Your task to perform on an android device: toggle javascript in the chrome app Image 0: 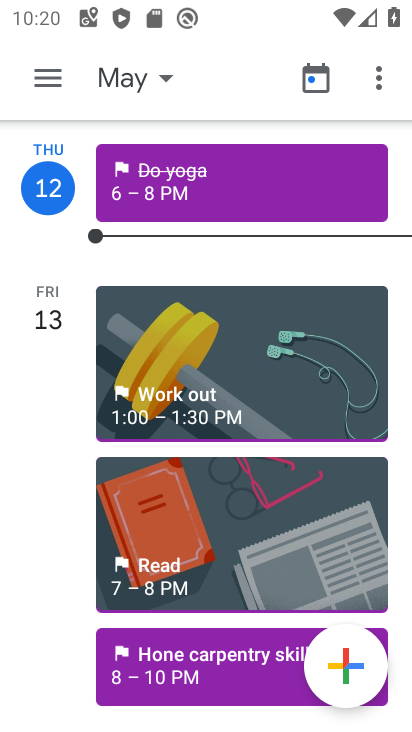
Step 0: press home button
Your task to perform on an android device: toggle javascript in the chrome app Image 1: 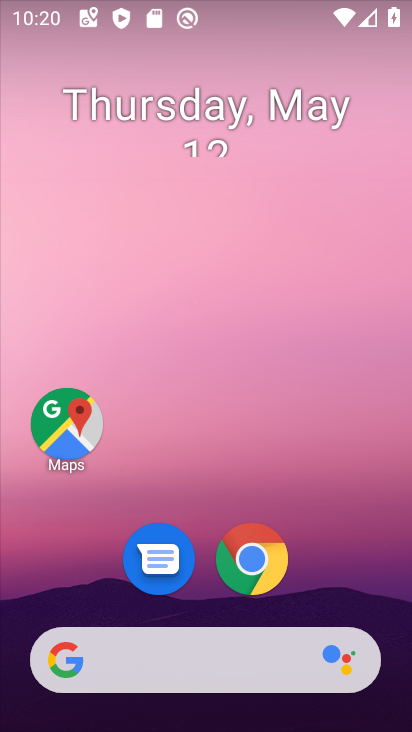
Step 1: click (240, 577)
Your task to perform on an android device: toggle javascript in the chrome app Image 2: 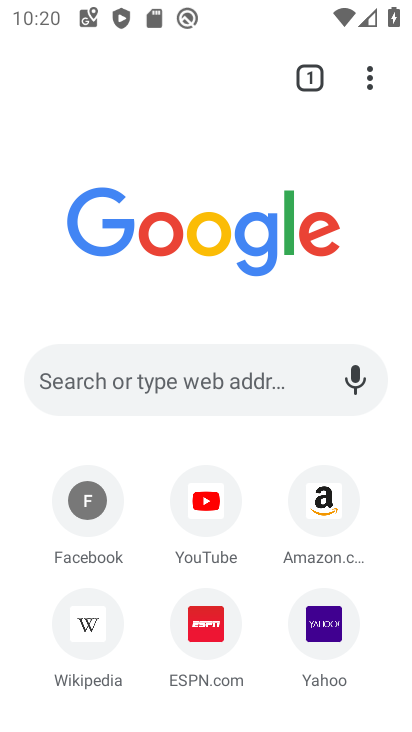
Step 2: drag from (367, 77) to (139, 630)
Your task to perform on an android device: toggle javascript in the chrome app Image 3: 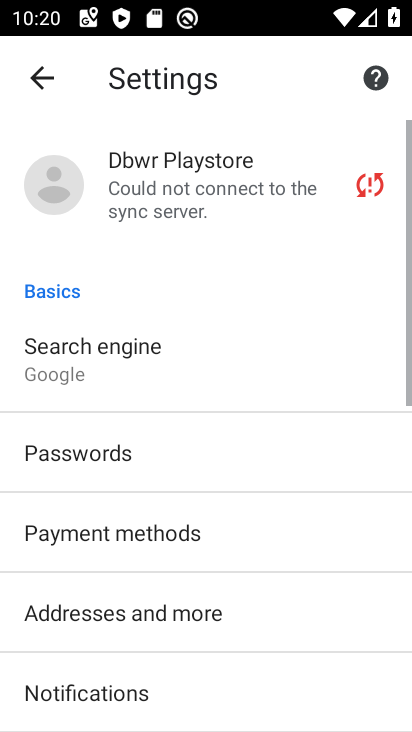
Step 3: drag from (139, 630) to (245, 307)
Your task to perform on an android device: toggle javascript in the chrome app Image 4: 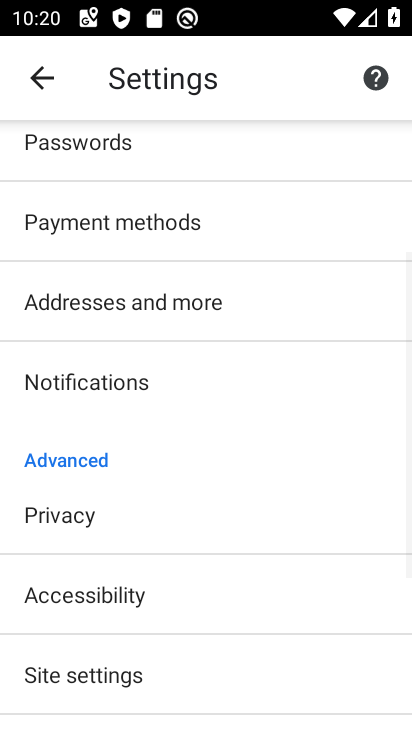
Step 4: drag from (95, 646) to (201, 390)
Your task to perform on an android device: toggle javascript in the chrome app Image 5: 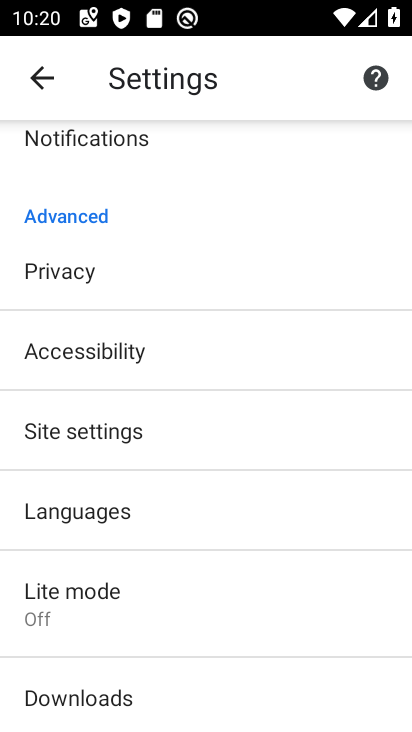
Step 5: click (116, 453)
Your task to perform on an android device: toggle javascript in the chrome app Image 6: 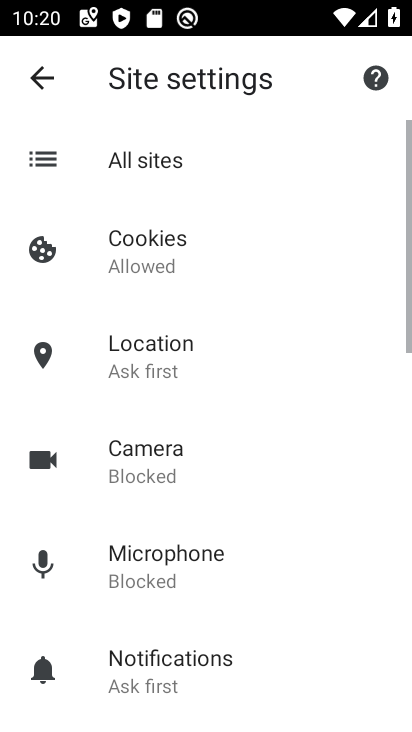
Step 6: drag from (188, 621) to (235, 320)
Your task to perform on an android device: toggle javascript in the chrome app Image 7: 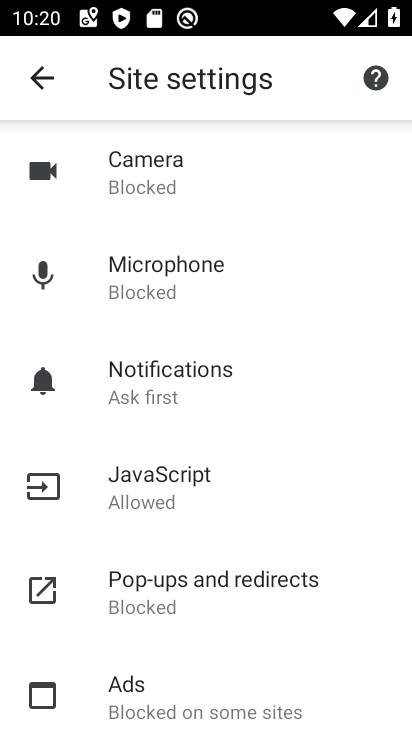
Step 7: click (141, 528)
Your task to perform on an android device: toggle javascript in the chrome app Image 8: 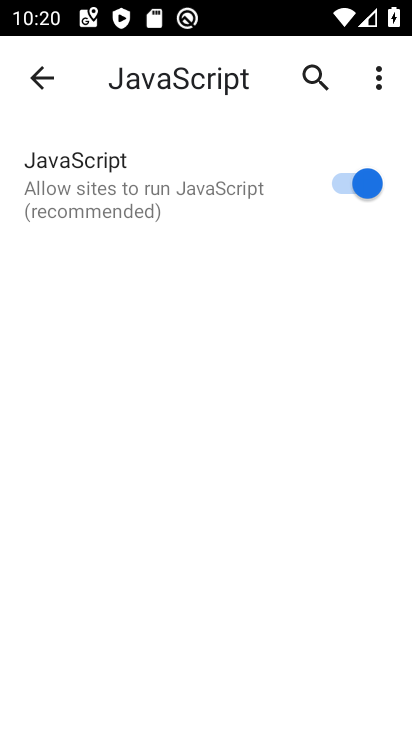
Step 8: click (330, 172)
Your task to perform on an android device: toggle javascript in the chrome app Image 9: 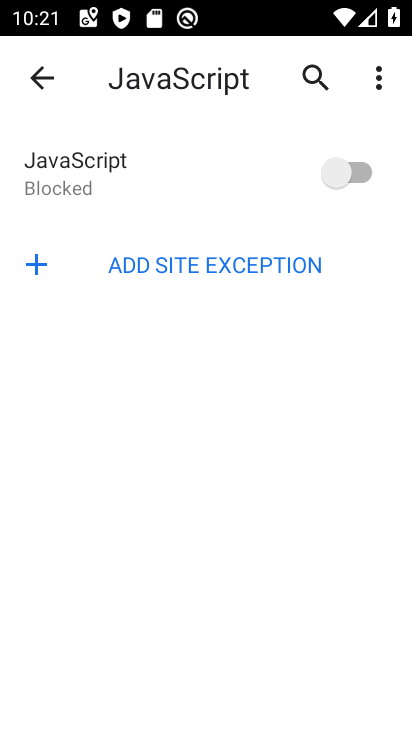
Step 9: task complete